Your task to perform on an android device: Open display settings Image 0: 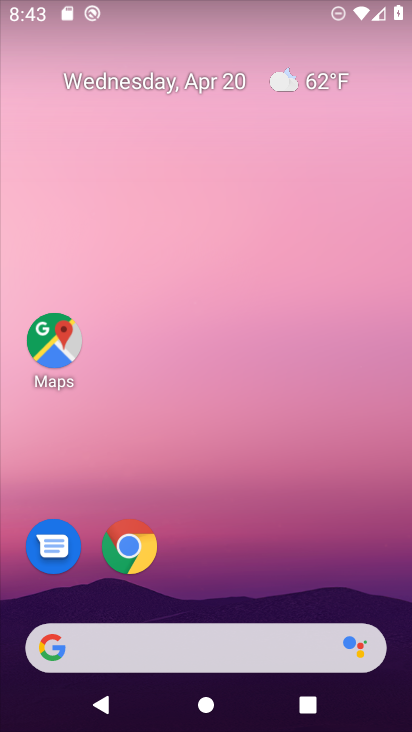
Step 0: drag from (218, 542) to (260, 143)
Your task to perform on an android device: Open display settings Image 1: 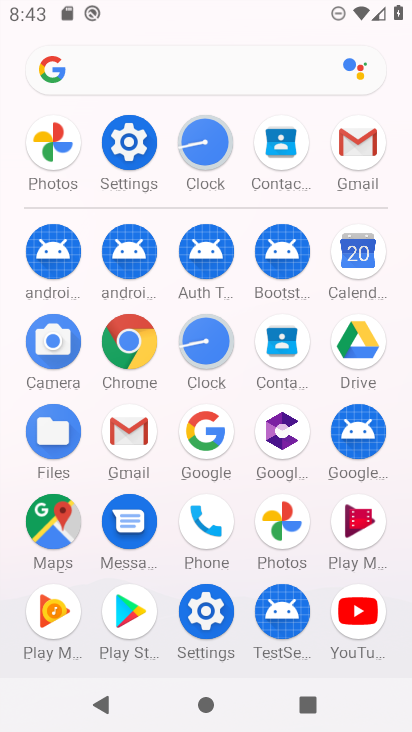
Step 1: click (131, 139)
Your task to perform on an android device: Open display settings Image 2: 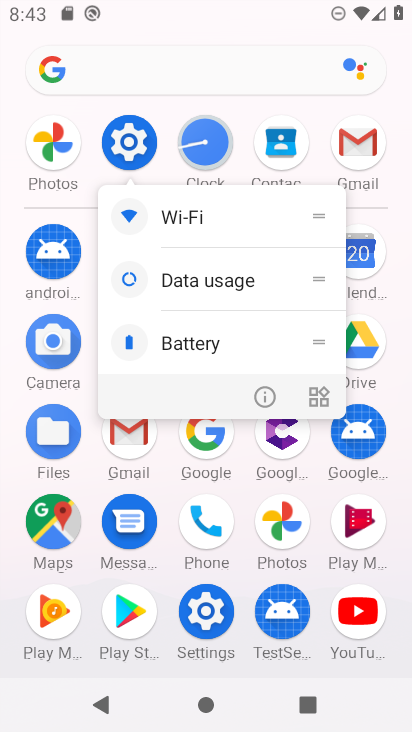
Step 2: click (131, 139)
Your task to perform on an android device: Open display settings Image 3: 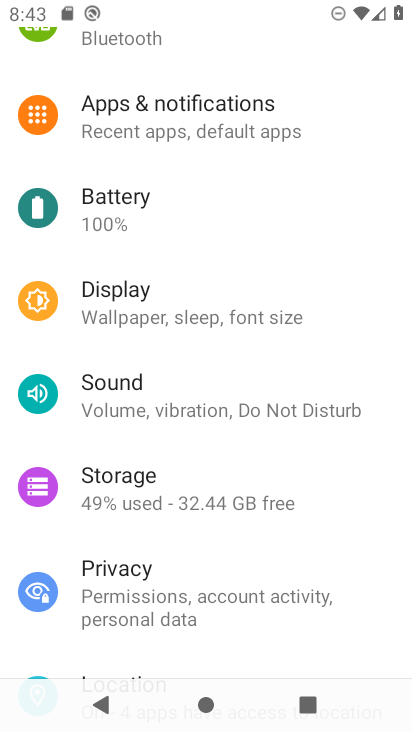
Step 3: click (177, 310)
Your task to perform on an android device: Open display settings Image 4: 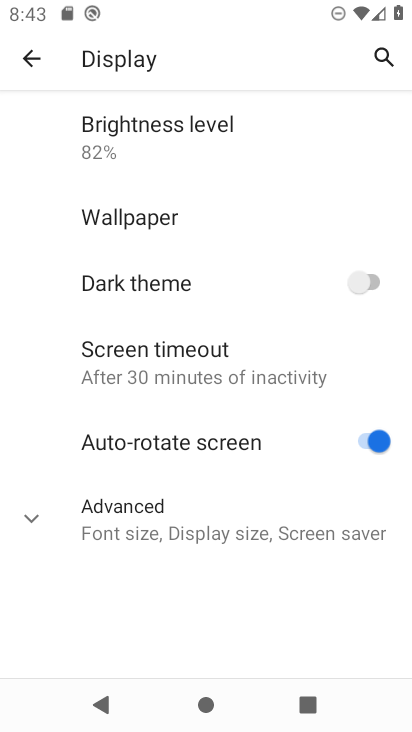
Step 4: task complete